Your task to perform on an android device: Open the phone app and click the voicemail tab. Image 0: 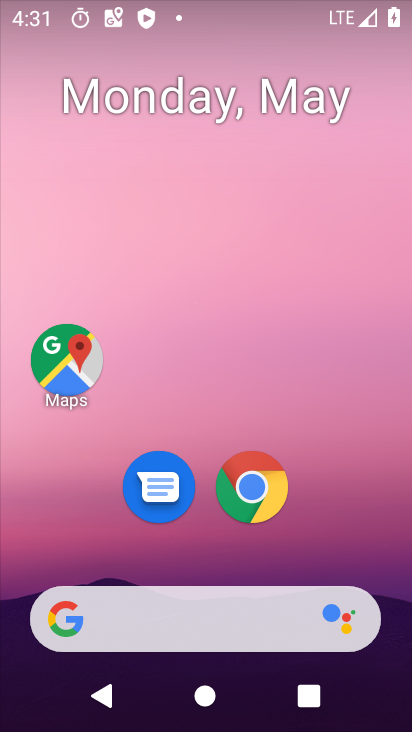
Step 0: drag from (367, 547) to (391, 21)
Your task to perform on an android device: Open the phone app and click the voicemail tab. Image 1: 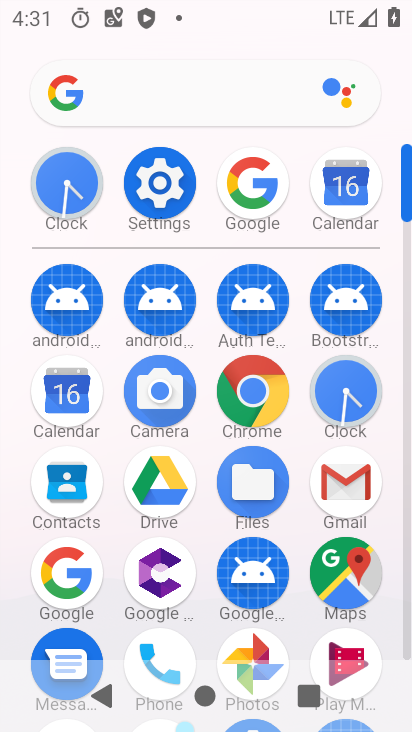
Step 1: click (149, 648)
Your task to perform on an android device: Open the phone app and click the voicemail tab. Image 2: 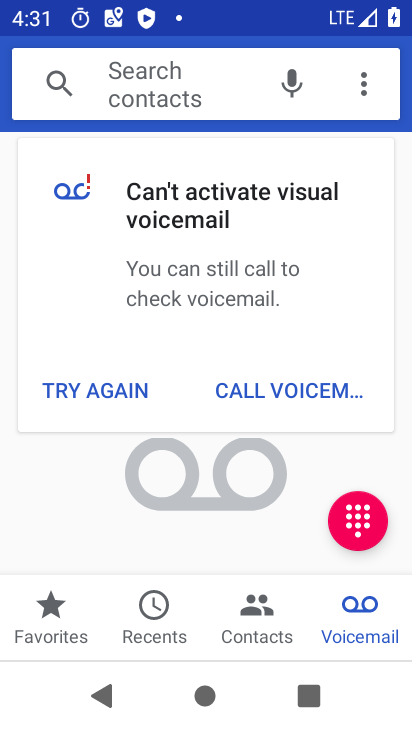
Step 2: click (362, 631)
Your task to perform on an android device: Open the phone app and click the voicemail tab. Image 3: 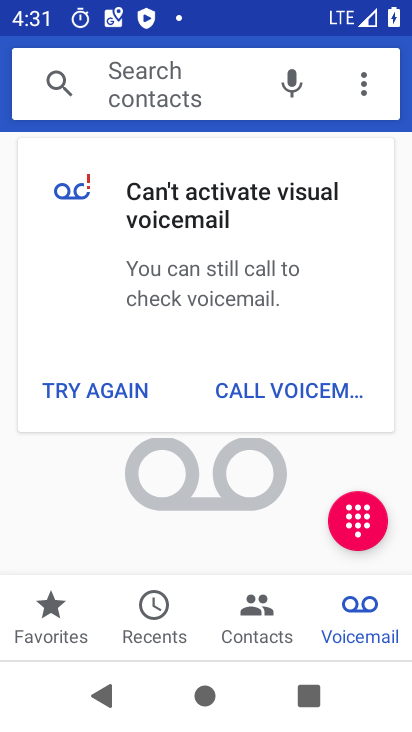
Step 3: task complete